Your task to perform on an android device: uninstall "PUBG MOBILE" Image 0: 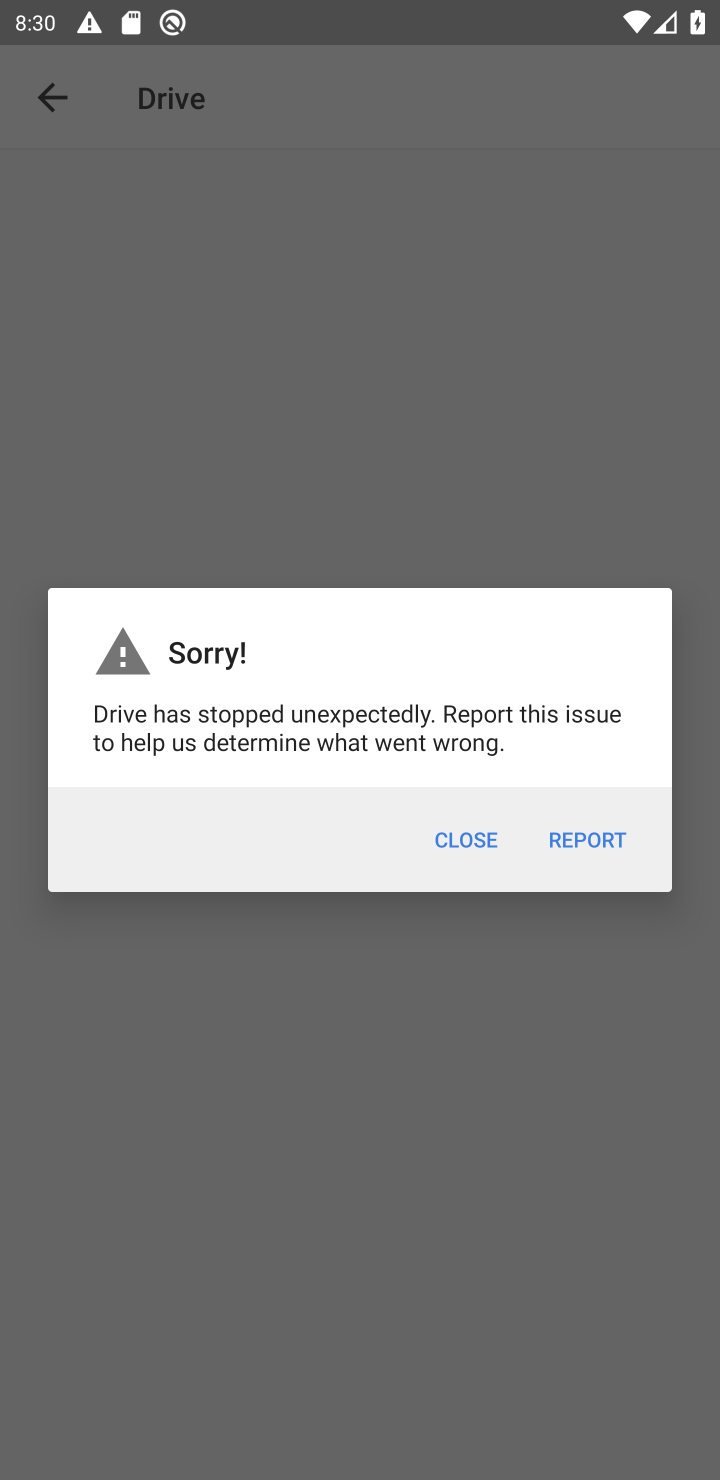
Step 0: press home button
Your task to perform on an android device: uninstall "PUBG MOBILE" Image 1: 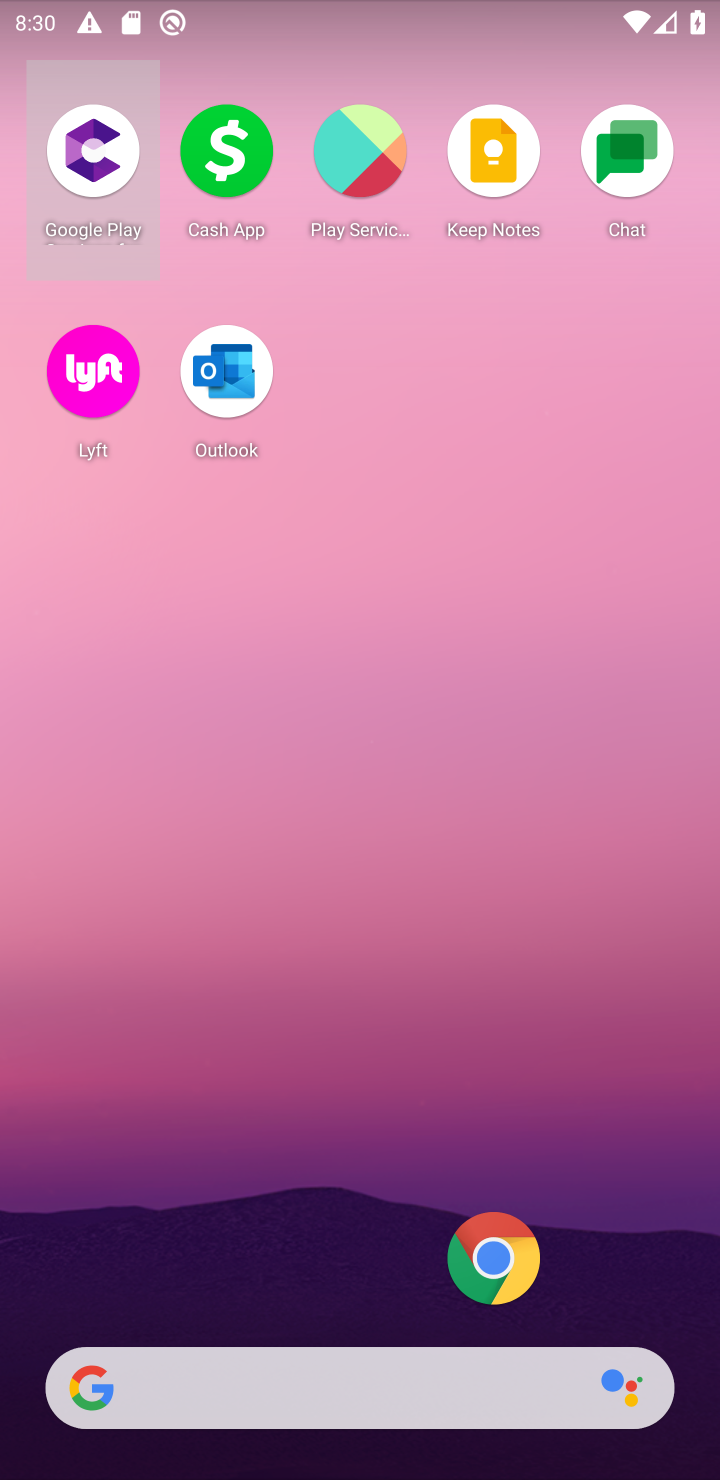
Step 1: drag from (585, 1008) to (502, 60)
Your task to perform on an android device: uninstall "PUBG MOBILE" Image 2: 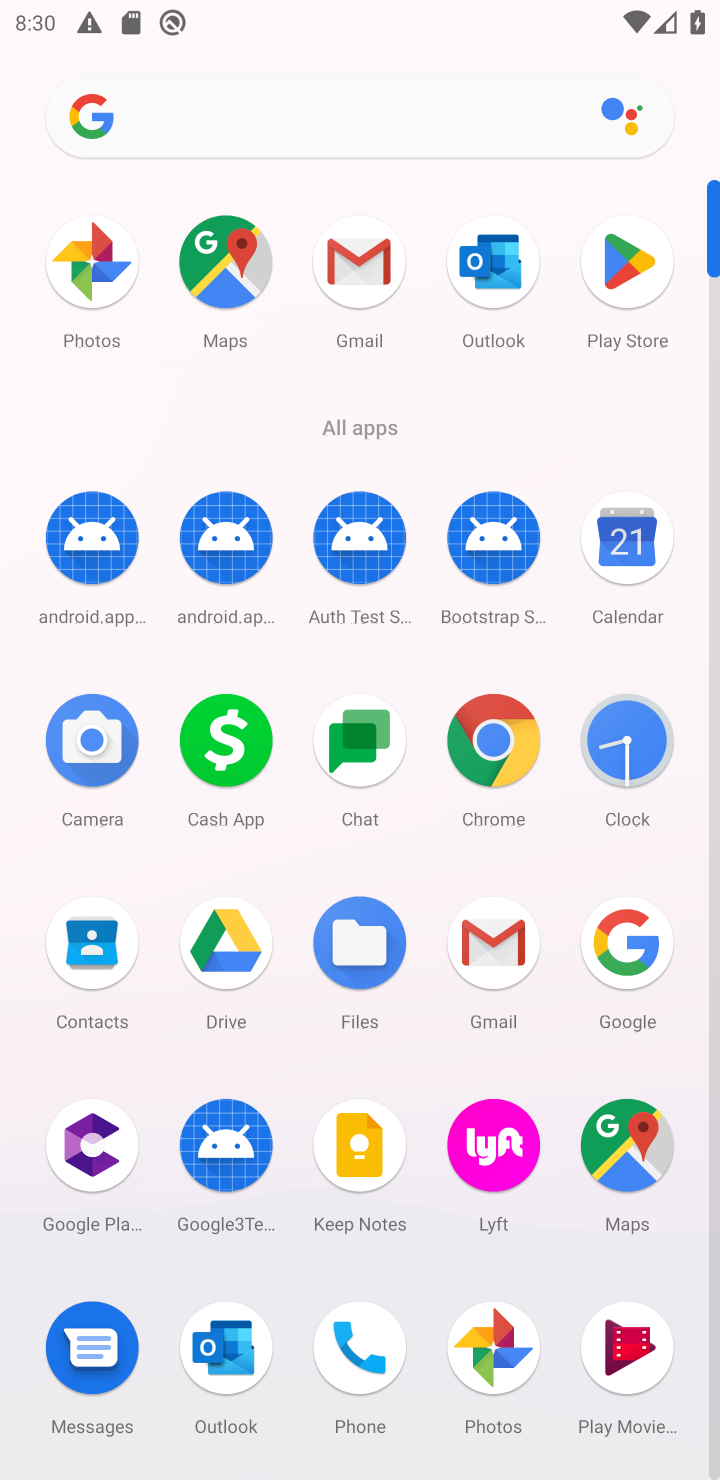
Step 2: click (627, 270)
Your task to perform on an android device: uninstall "PUBG MOBILE" Image 3: 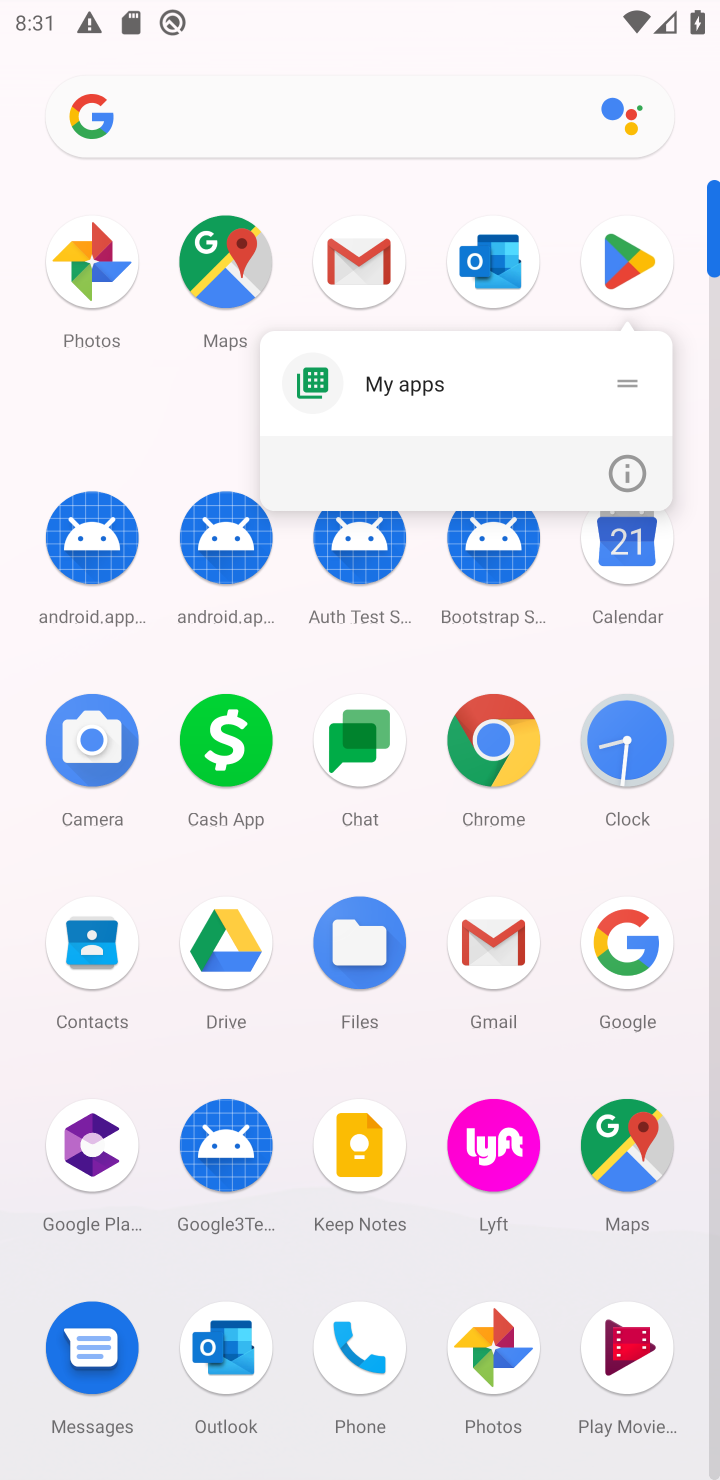
Step 3: click (627, 270)
Your task to perform on an android device: uninstall "PUBG MOBILE" Image 4: 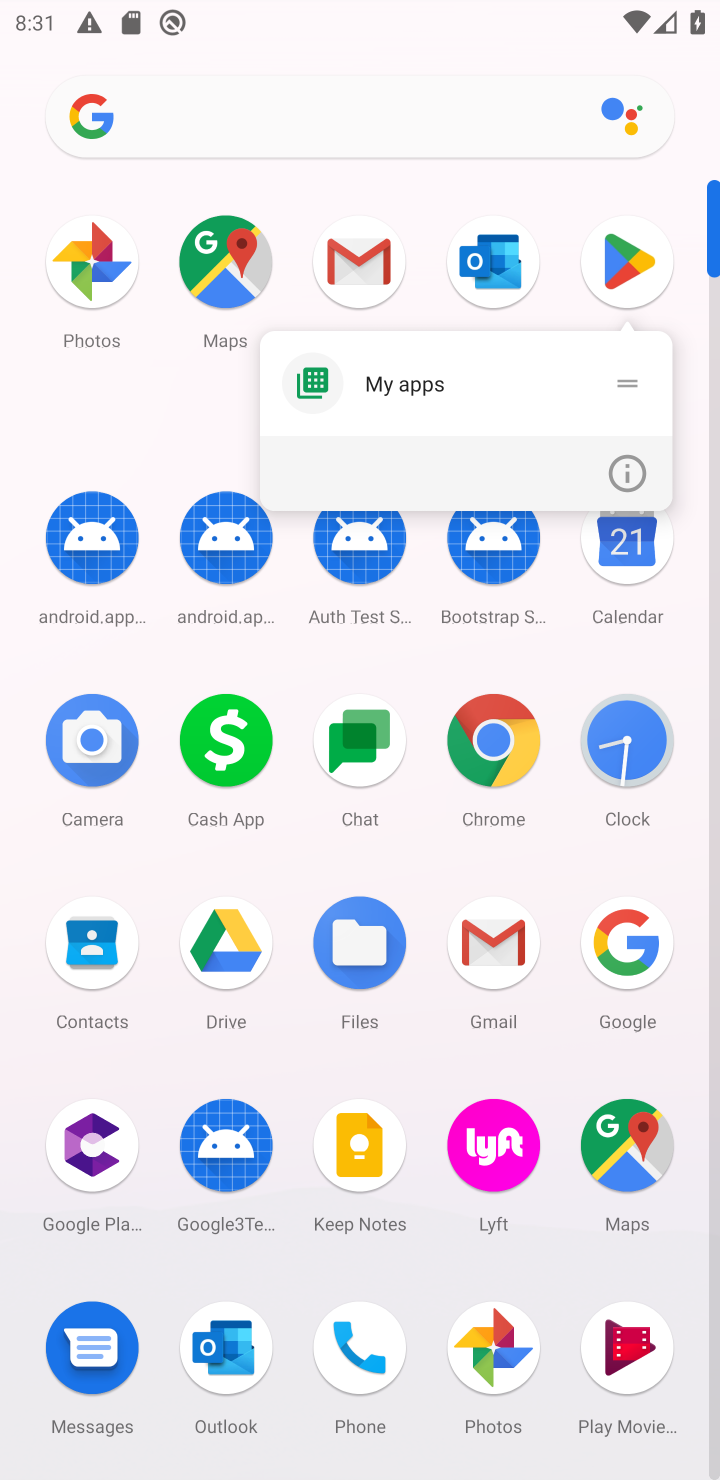
Step 4: click (627, 270)
Your task to perform on an android device: uninstall "PUBG MOBILE" Image 5: 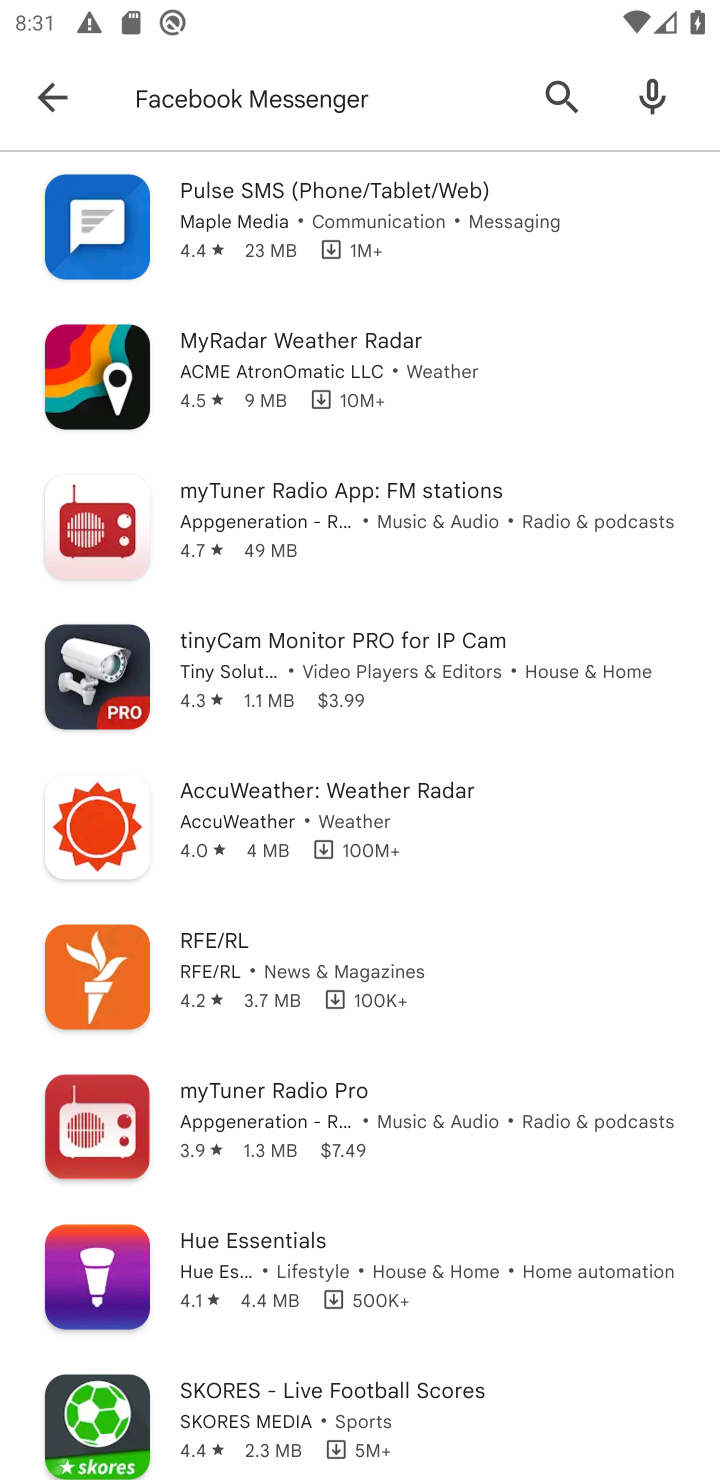
Step 5: press back button
Your task to perform on an android device: uninstall "PUBG MOBILE" Image 6: 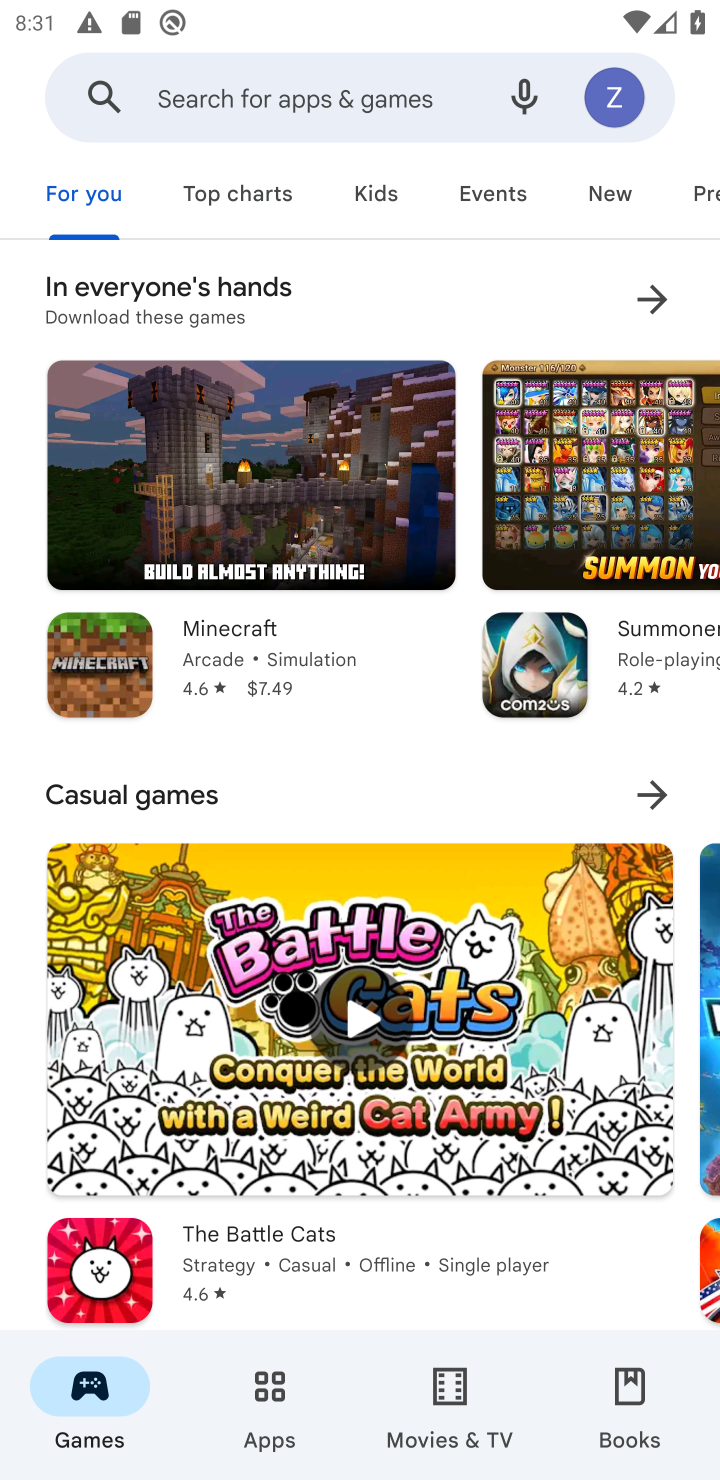
Step 6: click (383, 61)
Your task to perform on an android device: uninstall "PUBG MOBILE" Image 7: 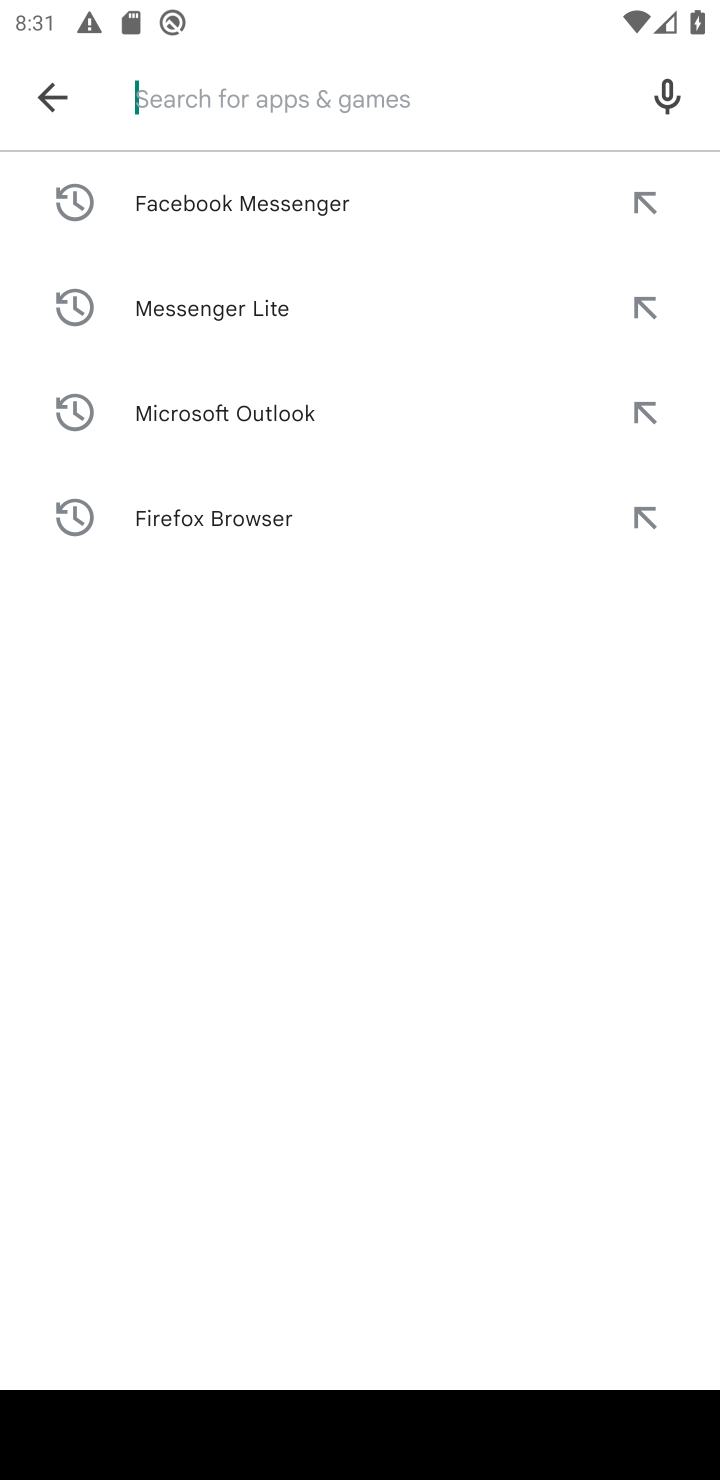
Step 7: type "PUBG MOBILE"
Your task to perform on an android device: uninstall "PUBG MOBILE" Image 8: 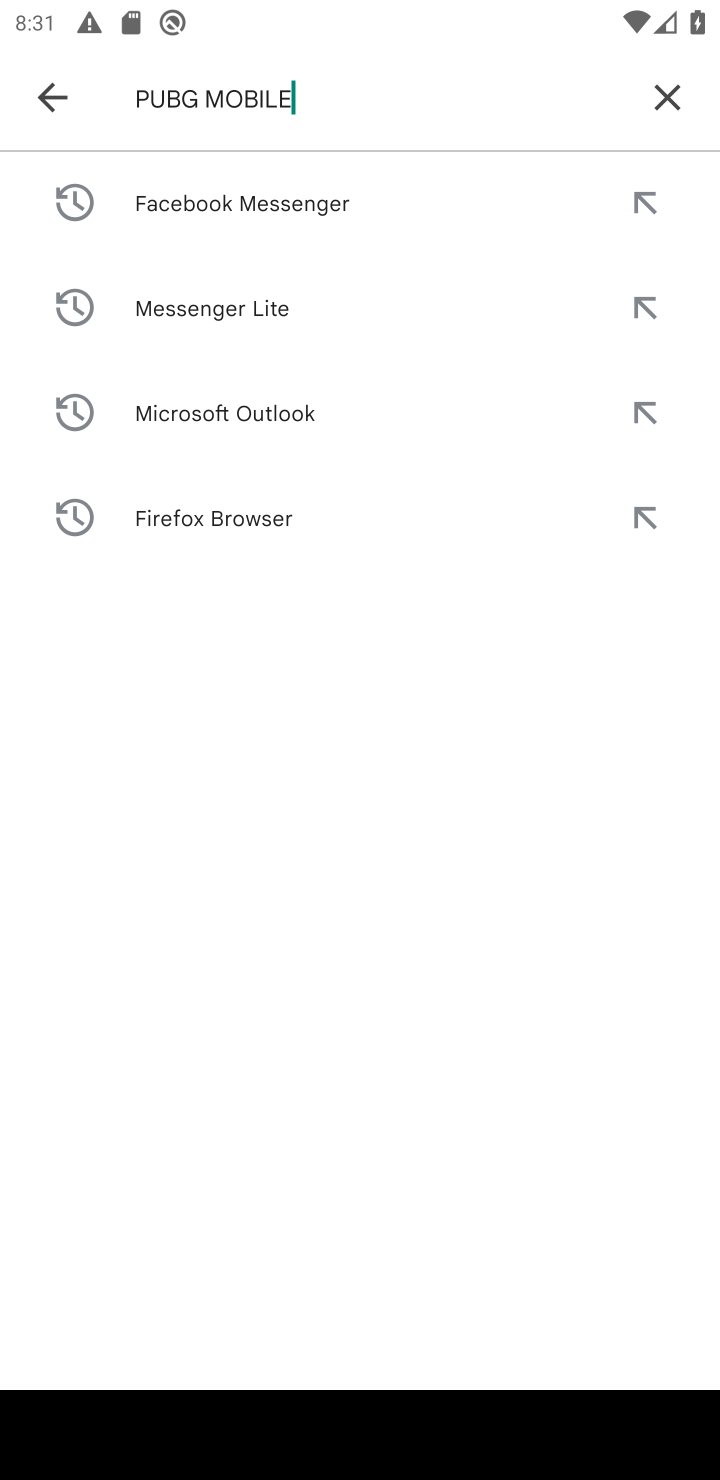
Step 8: press enter
Your task to perform on an android device: uninstall "PUBG MOBILE" Image 9: 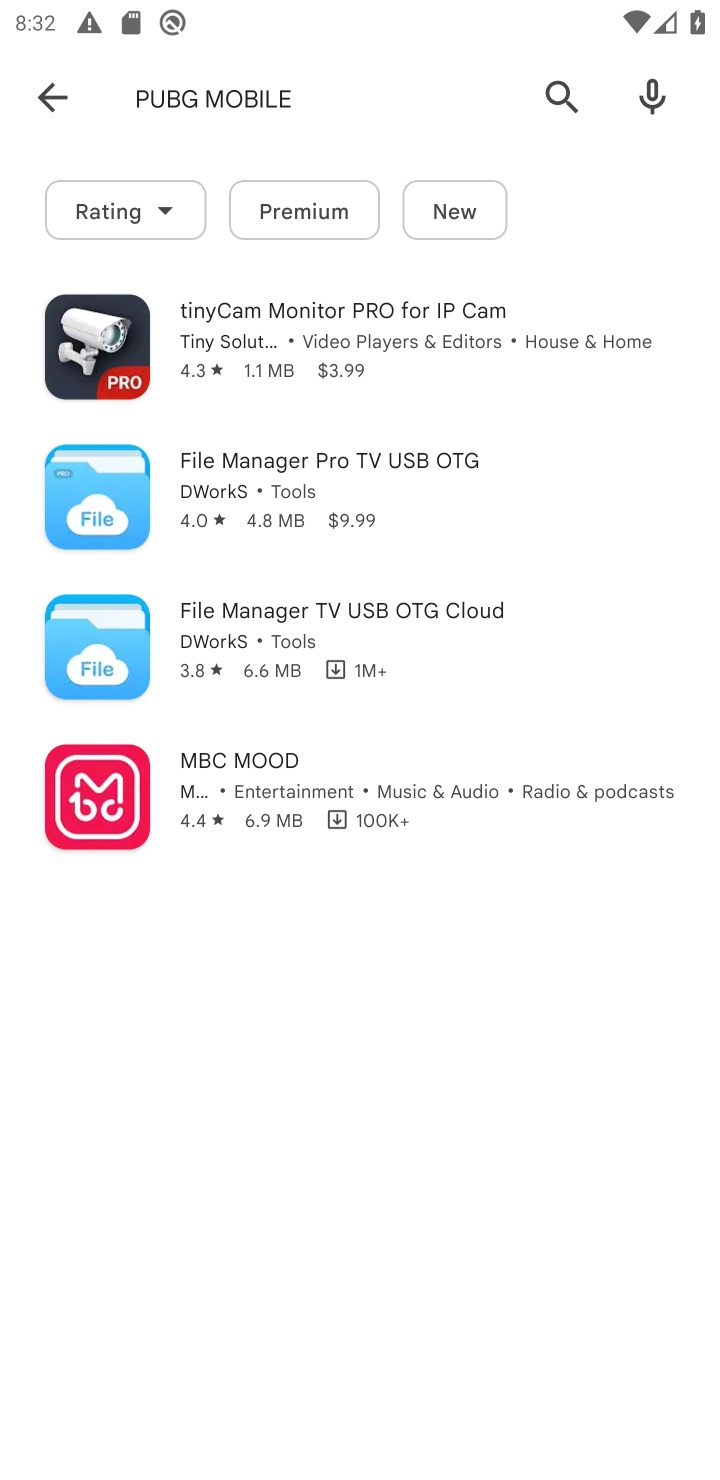
Step 9: task complete